Your task to perform on an android device: Go to Maps Image 0: 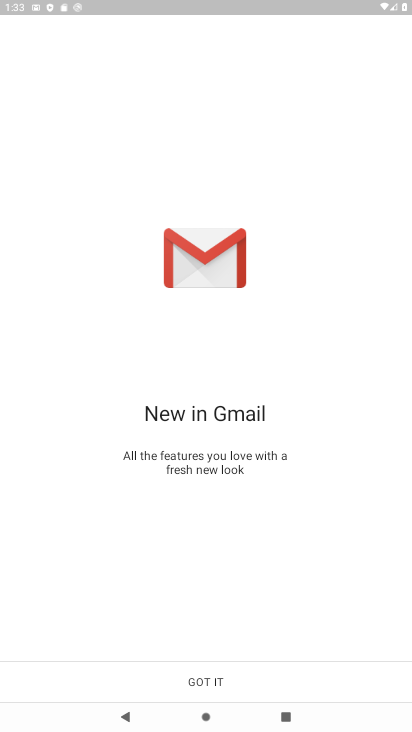
Step 0: press home button
Your task to perform on an android device: Go to Maps Image 1: 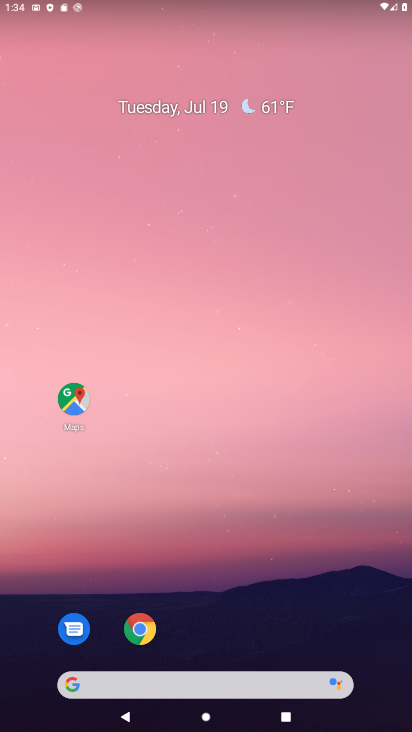
Step 1: click (73, 402)
Your task to perform on an android device: Go to Maps Image 2: 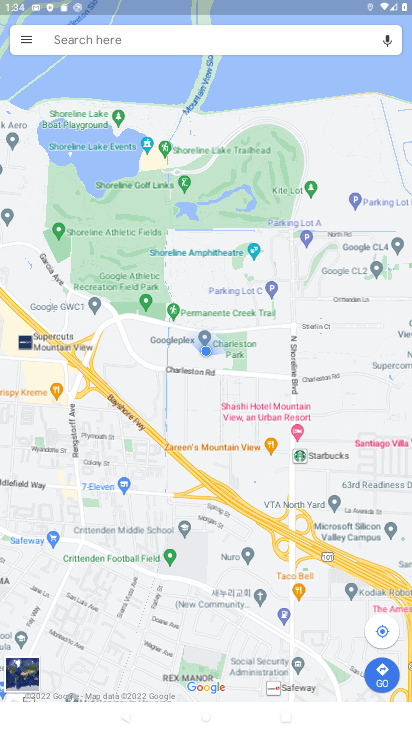
Step 2: task complete